Your task to perform on an android device: empty trash in google photos Image 0: 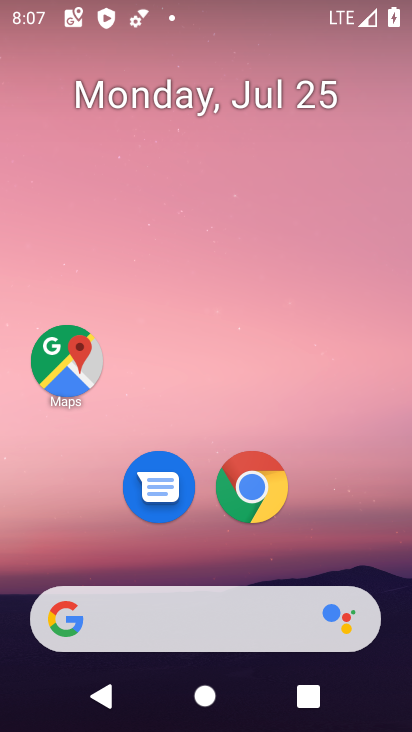
Step 0: drag from (175, 577) to (249, 4)
Your task to perform on an android device: empty trash in google photos Image 1: 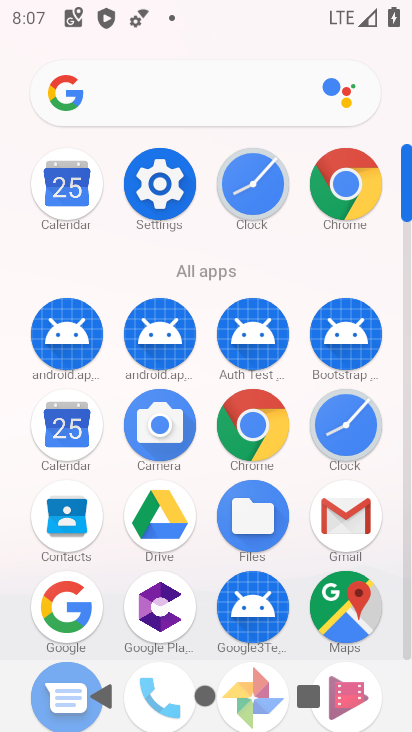
Step 1: drag from (214, 603) to (293, 143)
Your task to perform on an android device: empty trash in google photos Image 2: 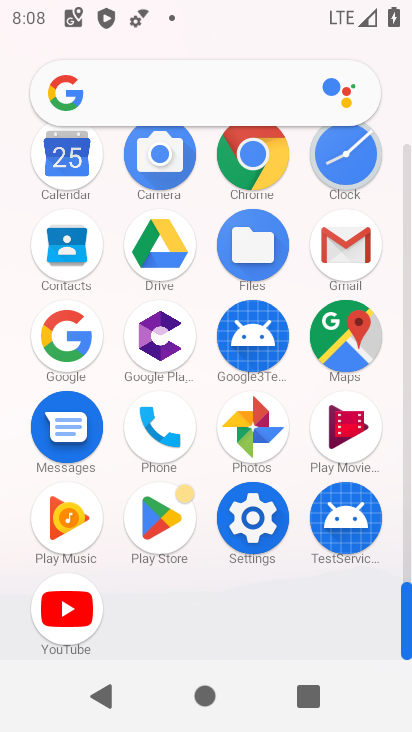
Step 2: click (238, 406)
Your task to perform on an android device: empty trash in google photos Image 3: 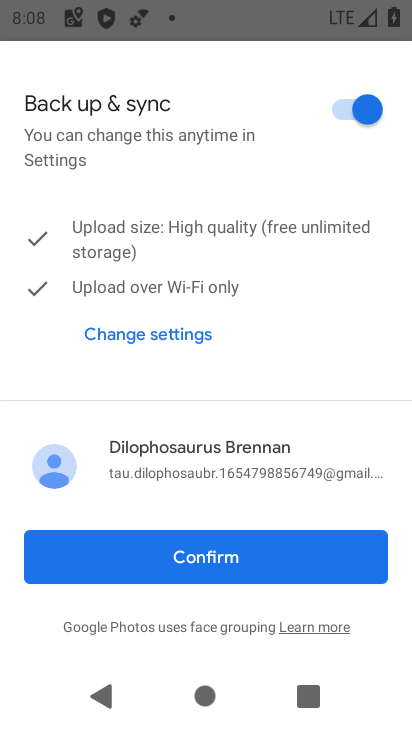
Step 3: click (188, 563)
Your task to perform on an android device: empty trash in google photos Image 4: 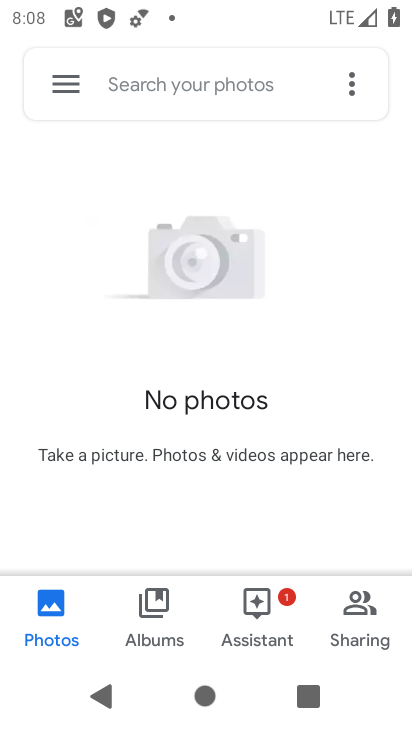
Step 4: click (70, 82)
Your task to perform on an android device: empty trash in google photos Image 5: 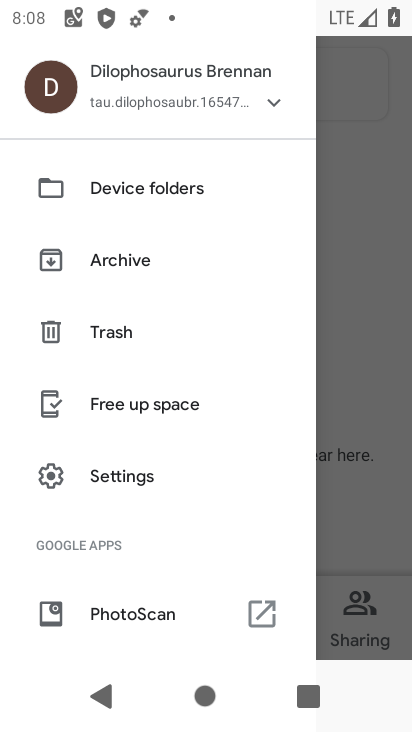
Step 5: click (115, 334)
Your task to perform on an android device: empty trash in google photos Image 6: 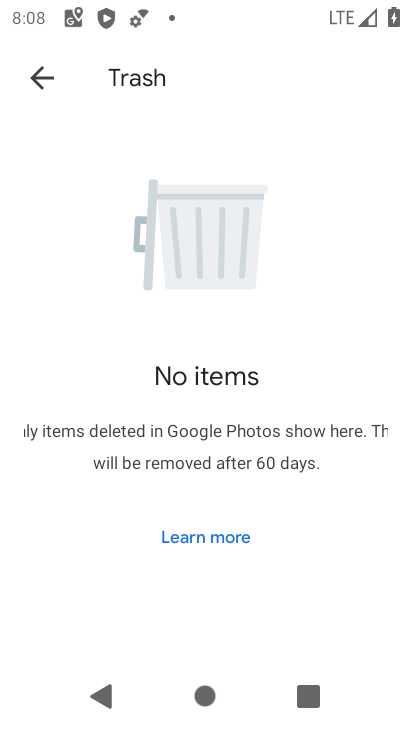
Step 6: task complete